Your task to perform on an android device: Clear all items from cart on newegg. Add lg ultragear to the cart on newegg, then select checkout. Image 0: 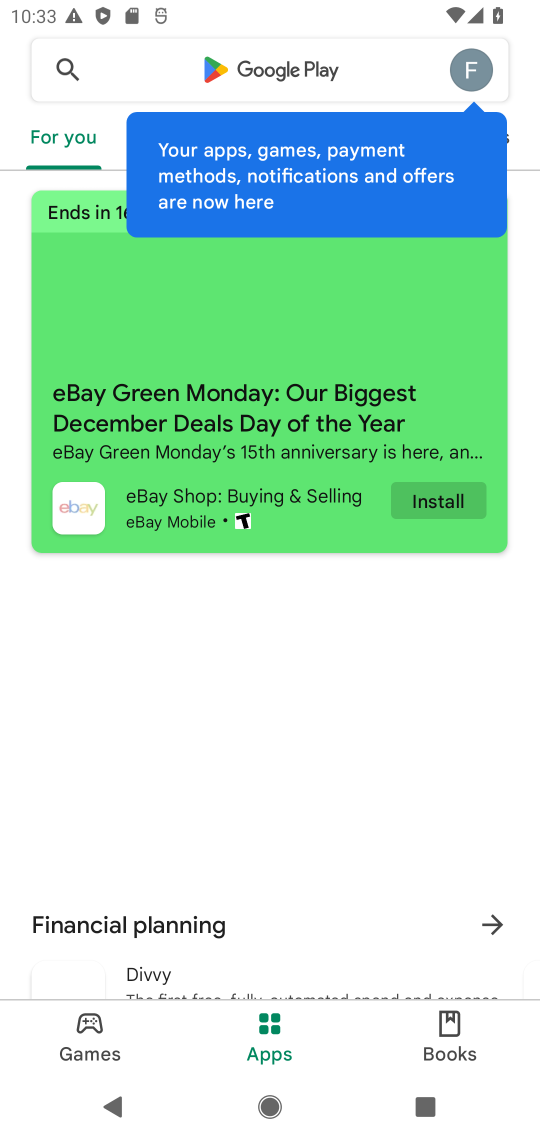
Step 0: press home button
Your task to perform on an android device: Clear all items from cart on newegg. Add lg ultragear to the cart on newegg, then select checkout. Image 1: 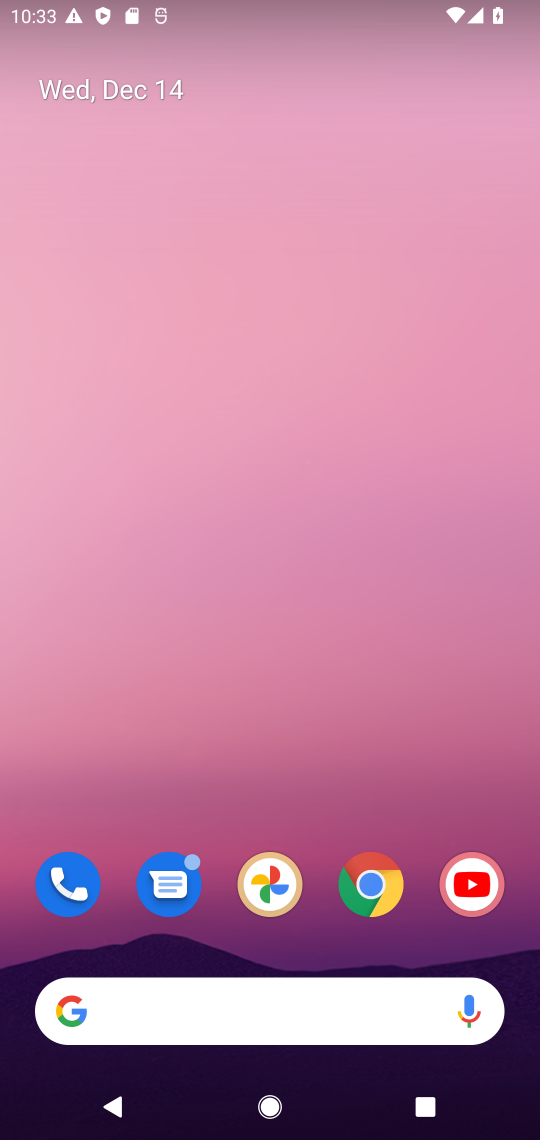
Step 1: click (363, 880)
Your task to perform on an android device: Clear all items from cart on newegg. Add lg ultragear to the cart on newegg, then select checkout. Image 2: 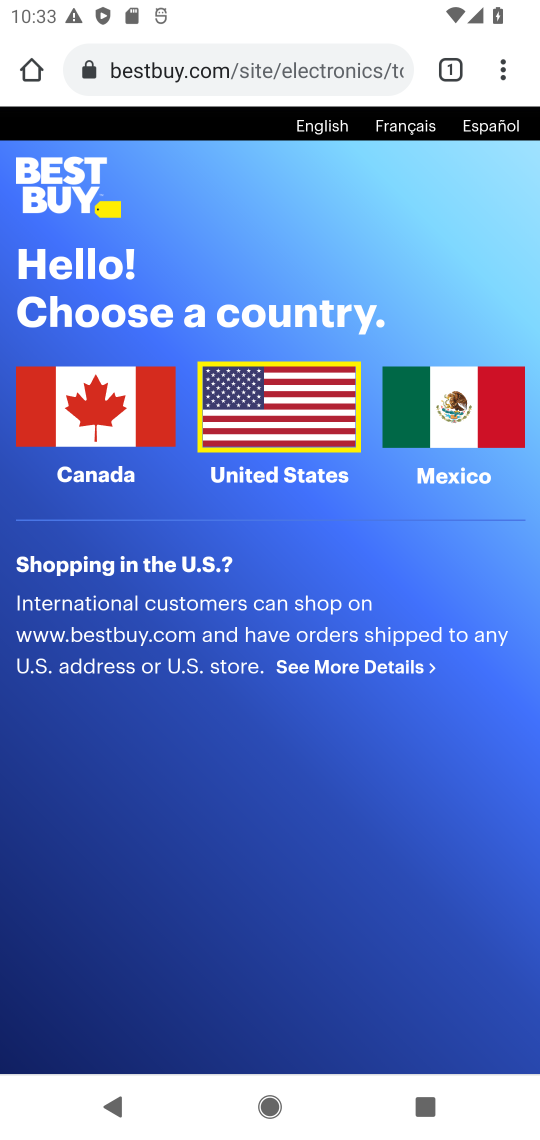
Step 2: click (354, 81)
Your task to perform on an android device: Clear all items from cart on newegg. Add lg ultragear to the cart on newegg, then select checkout. Image 3: 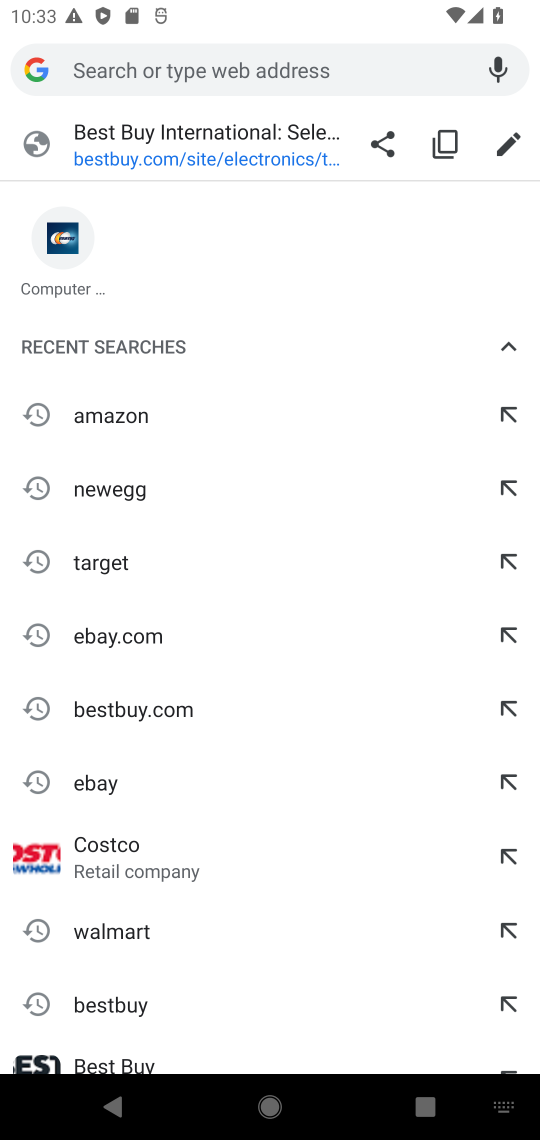
Step 3: click (121, 486)
Your task to perform on an android device: Clear all items from cart on newegg. Add lg ultragear to the cart on newegg, then select checkout. Image 4: 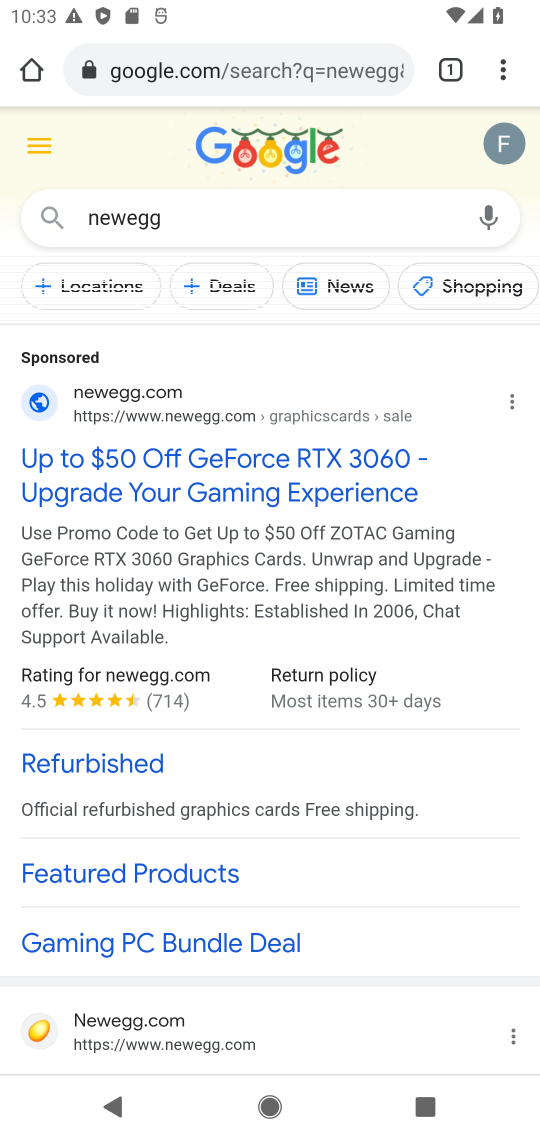
Step 4: click (193, 1039)
Your task to perform on an android device: Clear all items from cart on newegg. Add lg ultragear to the cart on newegg, then select checkout. Image 5: 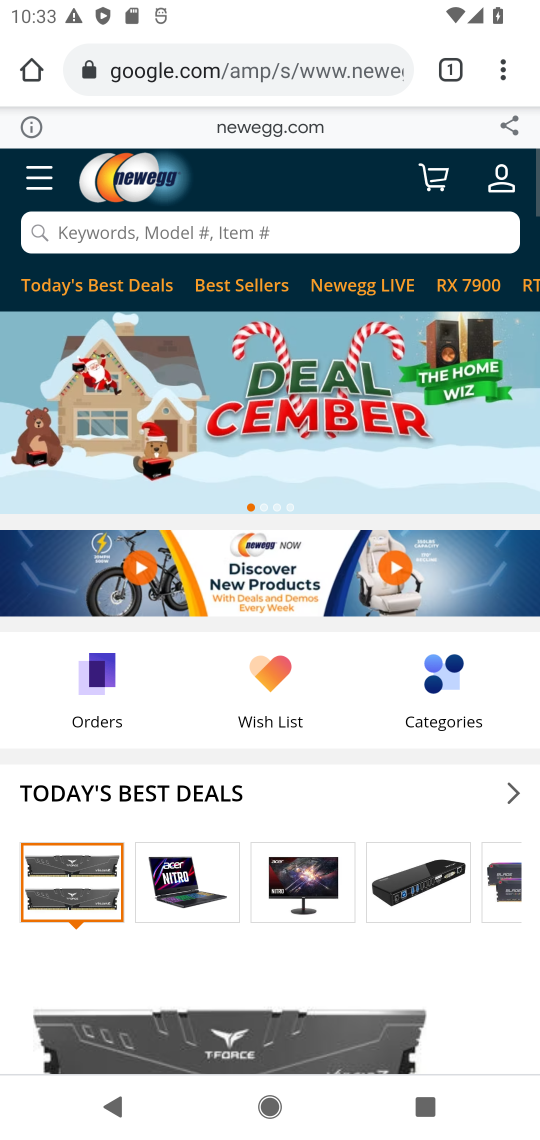
Step 5: click (448, 183)
Your task to perform on an android device: Clear all items from cart on newegg. Add lg ultragear to the cart on newegg, then select checkout. Image 6: 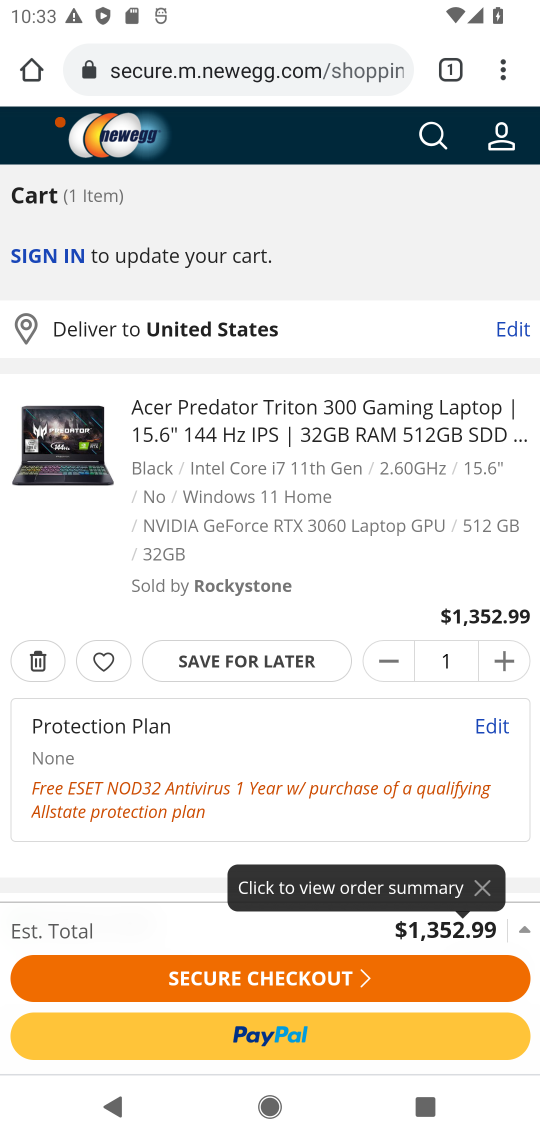
Step 6: click (431, 138)
Your task to perform on an android device: Clear all items from cart on newegg. Add lg ultragear to the cart on newegg, then select checkout. Image 7: 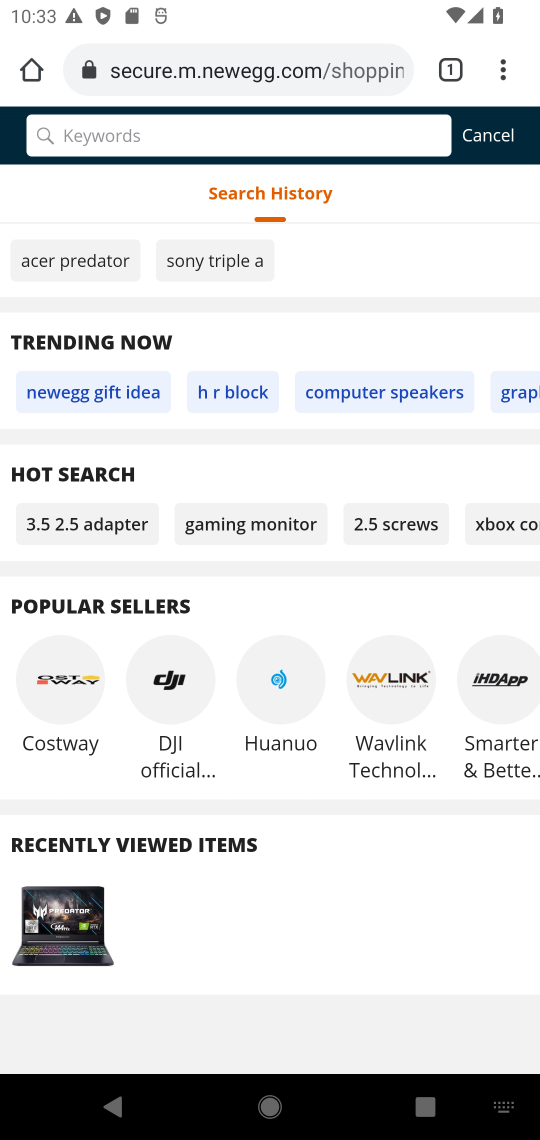
Step 7: click (372, 139)
Your task to perform on an android device: Clear all items from cart on newegg. Add lg ultragear to the cart on newegg, then select checkout. Image 8: 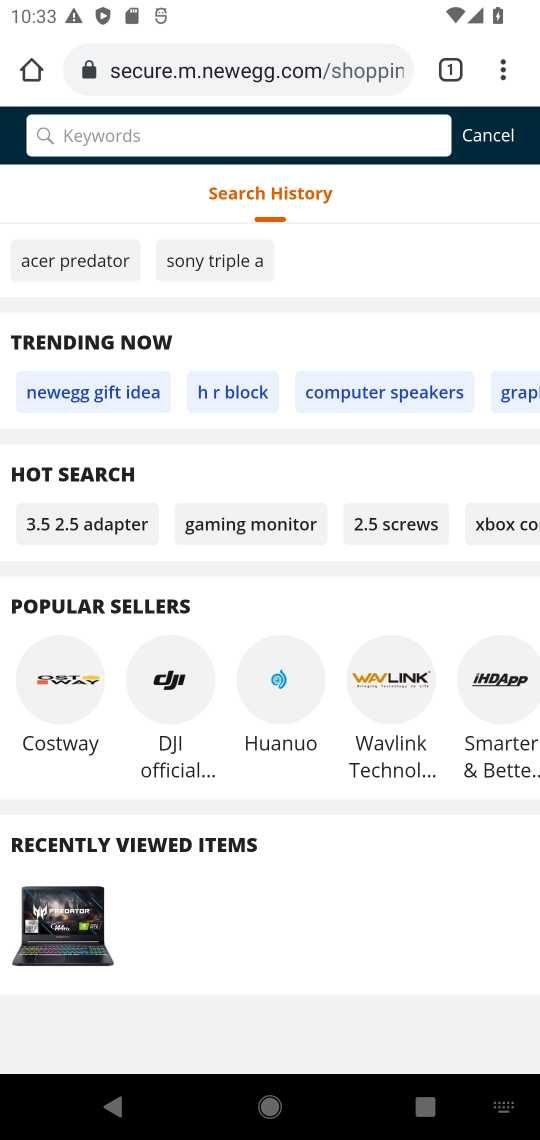
Step 8: press enter
Your task to perform on an android device: Clear all items from cart on newegg. Add lg ultragear to the cart on newegg, then select checkout. Image 9: 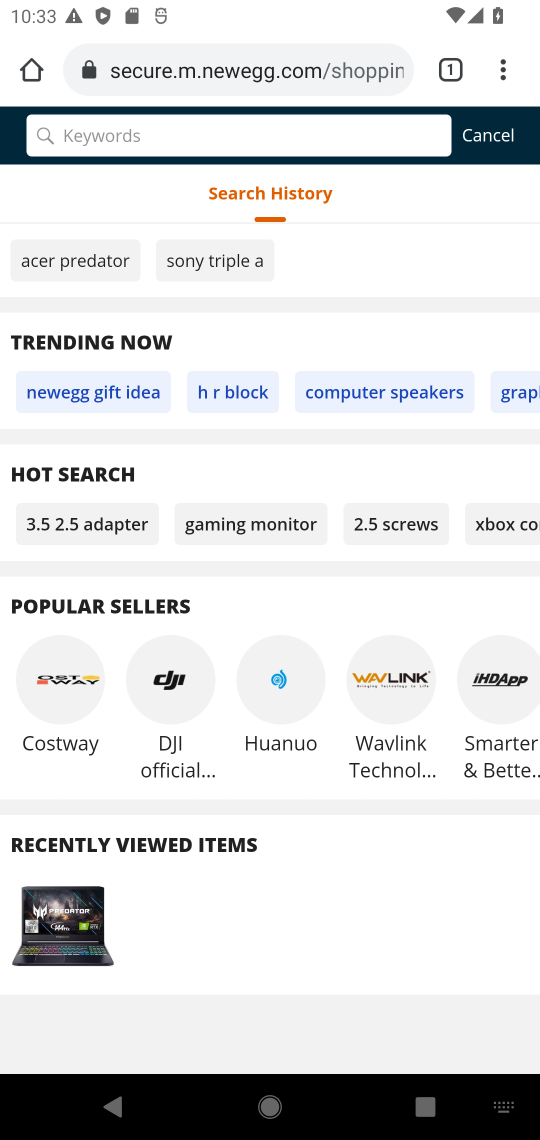
Step 9: type "lg ultragear"
Your task to perform on an android device: Clear all items from cart on newegg. Add lg ultragear to the cart on newegg, then select checkout. Image 10: 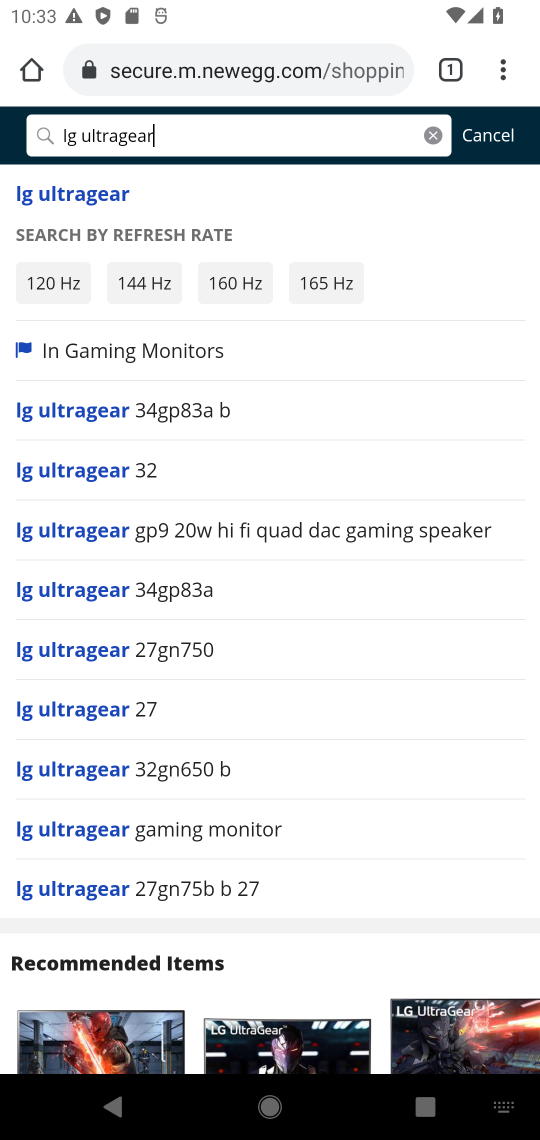
Step 10: click (112, 190)
Your task to perform on an android device: Clear all items from cart on newegg. Add lg ultragear to the cart on newegg, then select checkout. Image 11: 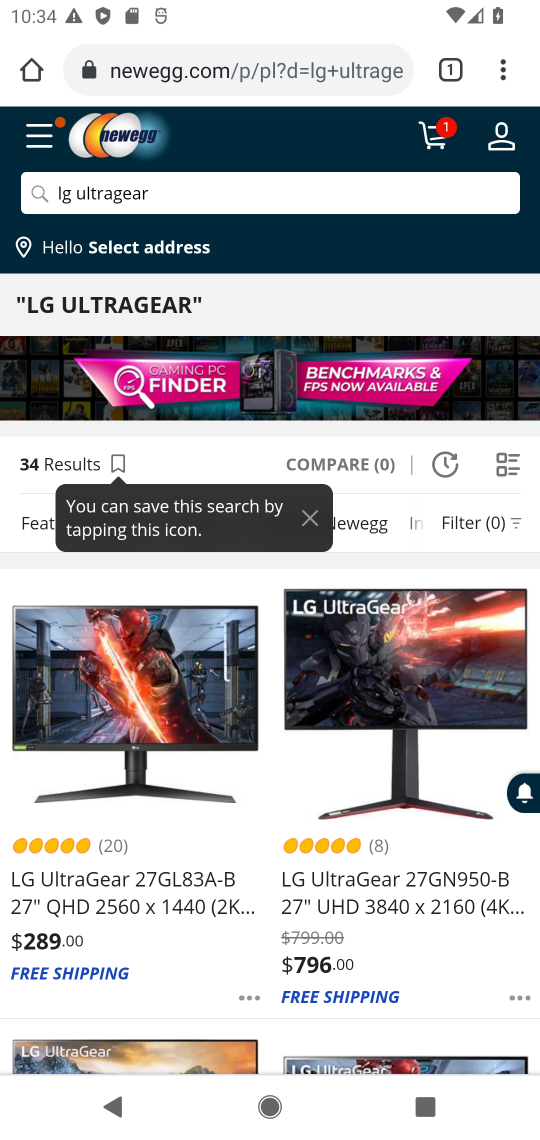
Step 11: click (445, 145)
Your task to perform on an android device: Clear all items from cart on newegg. Add lg ultragear to the cart on newegg, then select checkout. Image 12: 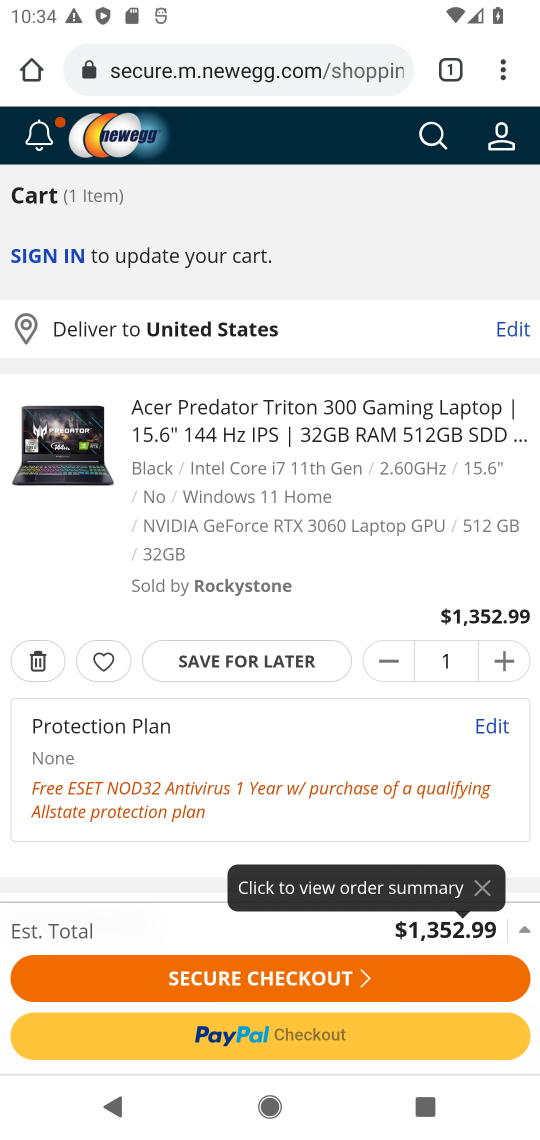
Step 12: click (28, 668)
Your task to perform on an android device: Clear all items from cart on newegg. Add lg ultragear to the cart on newegg, then select checkout. Image 13: 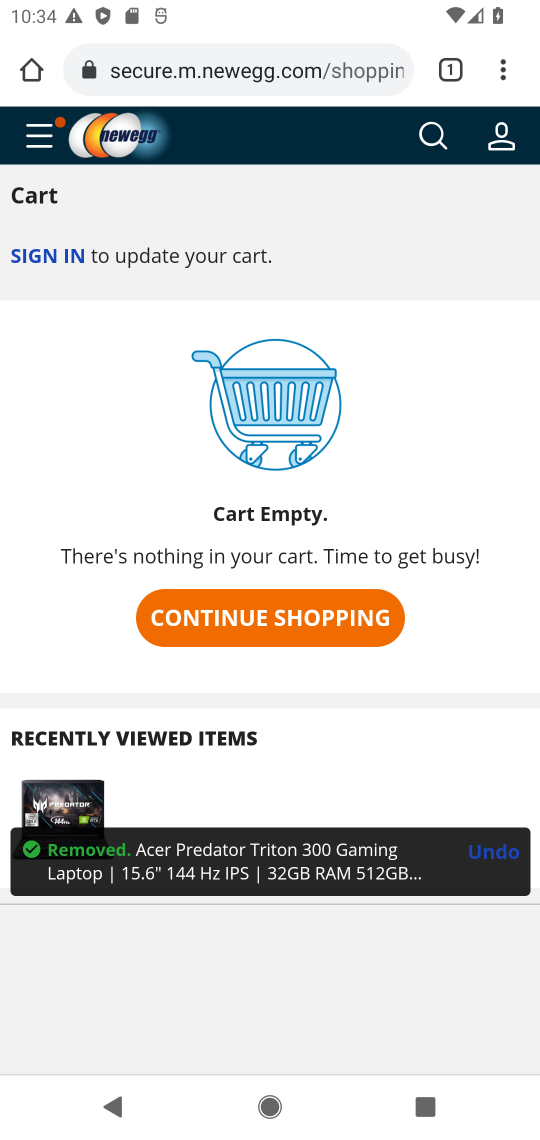
Step 13: click (437, 135)
Your task to perform on an android device: Clear all items from cart on newegg. Add lg ultragear to the cart on newegg, then select checkout. Image 14: 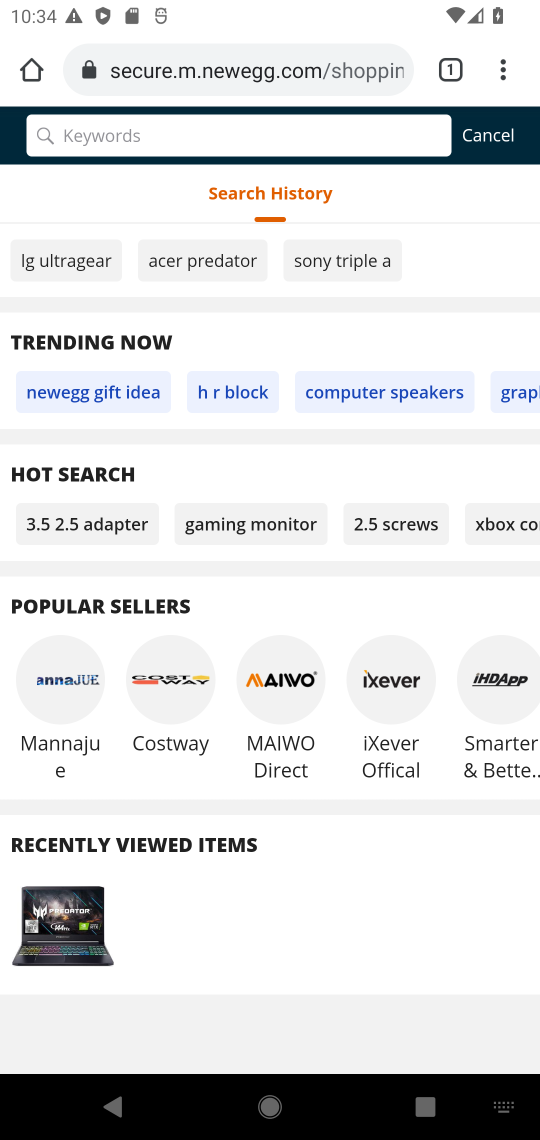
Step 14: click (357, 146)
Your task to perform on an android device: Clear all items from cart on newegg. Add lg ultragear to the cart on newegg, then select checkout. Image 15: 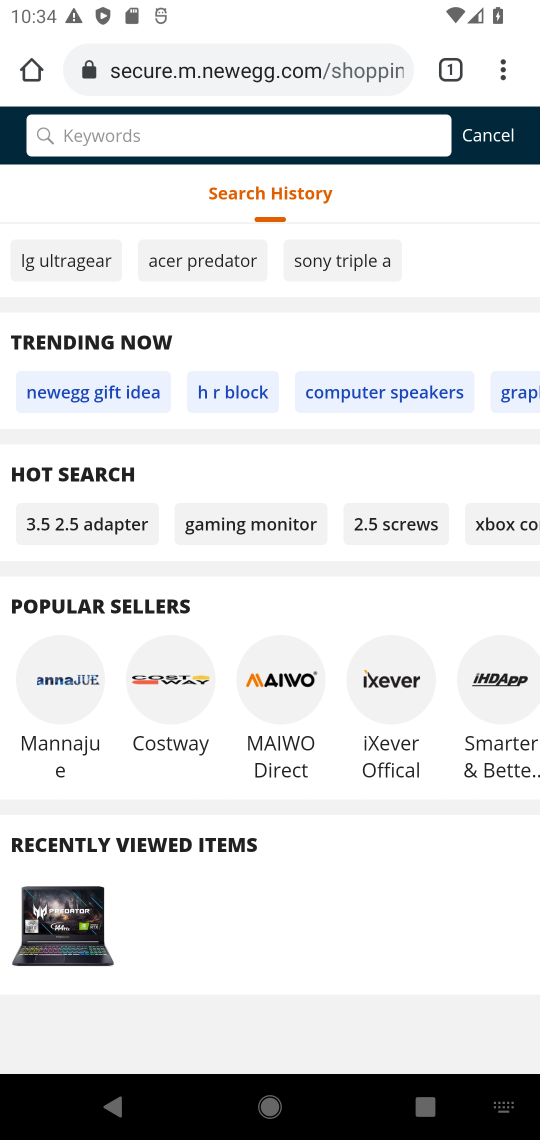
Step 15: press enter
Your task to perform on an android device: Clear all items from cart on newegg. Add lg ultragear to the cart on newegg, then select checkout. Image 16: 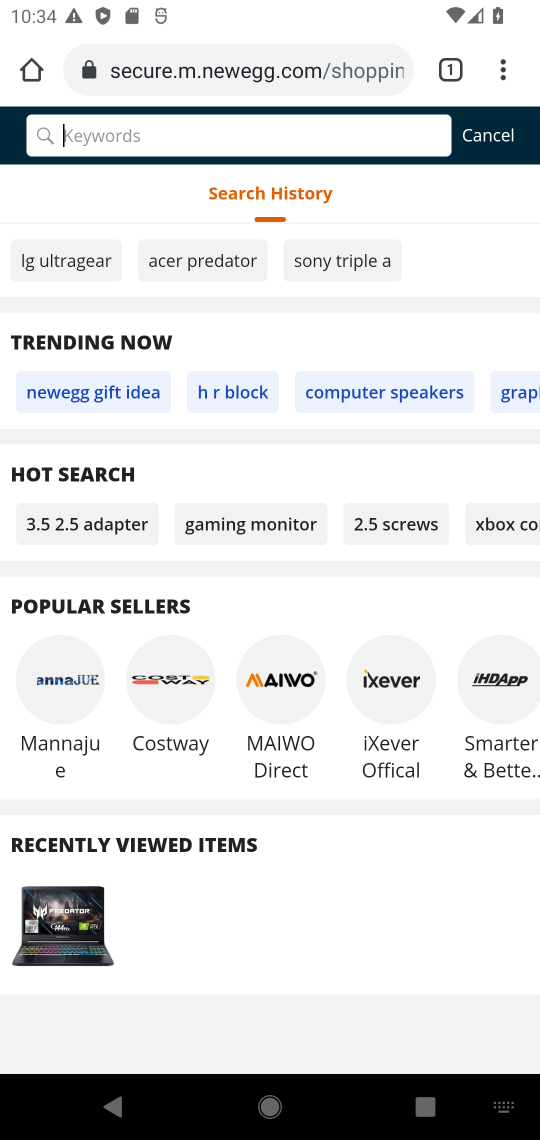
Step 16: type "lg ultragear"
Your task to perform on an android device: Clear all items from cart on newegg. Add lg ultragear to the cart on newegg, then select checkout. Image 17: 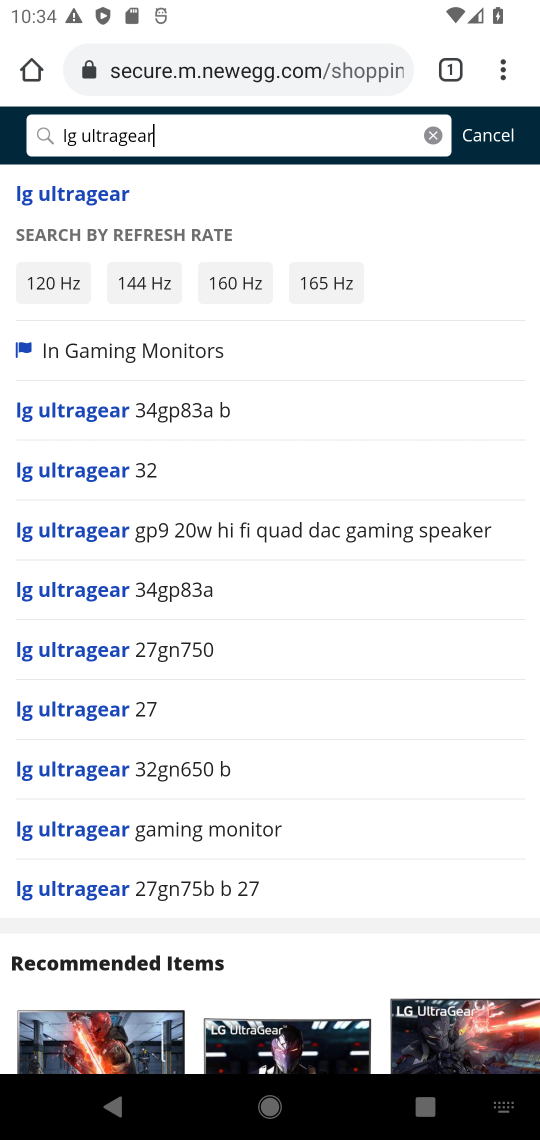
Step 17: click (105, 193)
Your task to perform on an android device: Clear all items from cart on newegg. Add lg ultragear to the cart on newegg, then select checkout. Image 18: 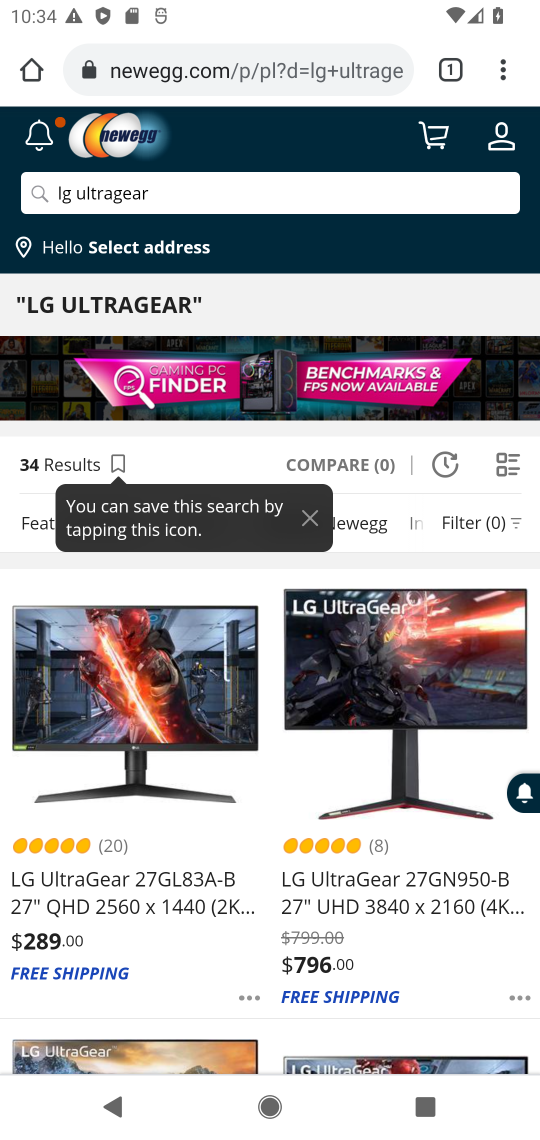
Step 18: click (164, 676)
Your task to perform on an android device: Clear all items from cart on newegg. Add lg ultragear to the cart on newegg, then select checkout. Image 19: 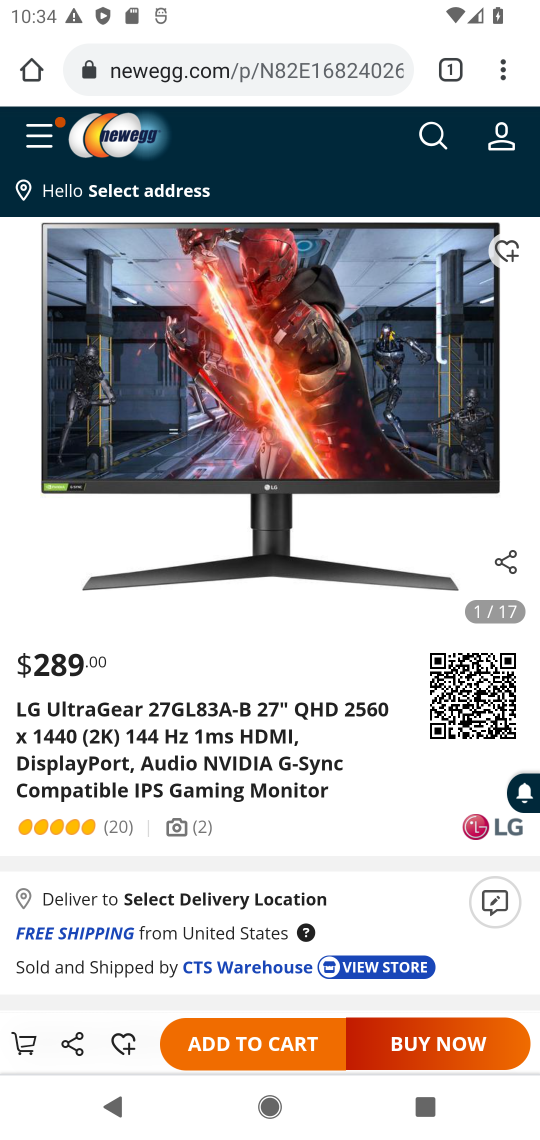
Step 19: click (257, 1035)
Your task to perform on an android device: Clear all items from cart on newegg. Add lg ultragear to the cart on newegg, then select checkout. Image 20: 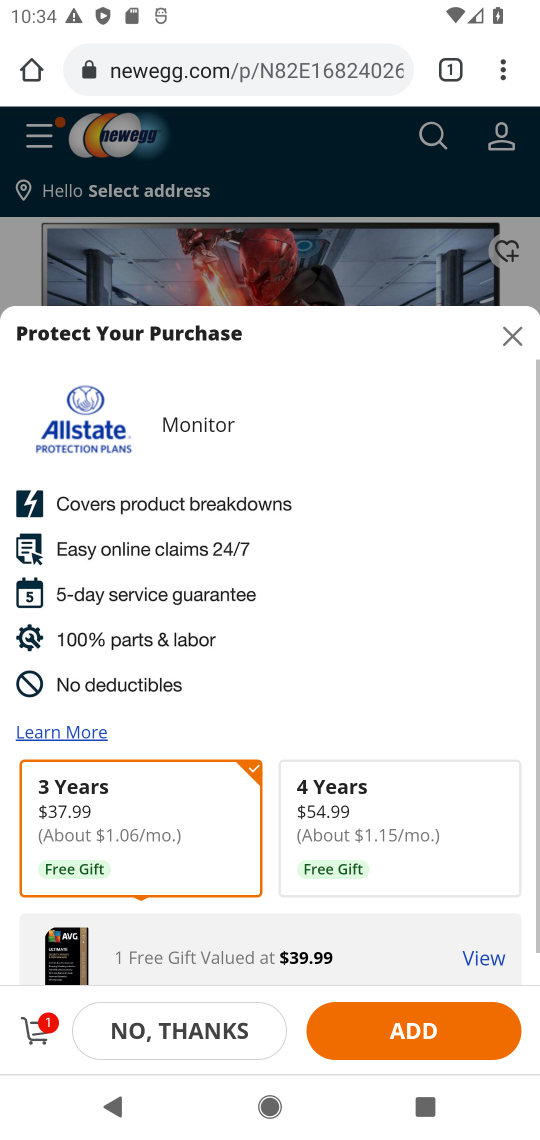
Step 20: click (33, 1038)
Your task to perform on an android device: Clear all items from cart on newegg. Add lg ultragear to the cart on newegg, then select checkout. Image 21: 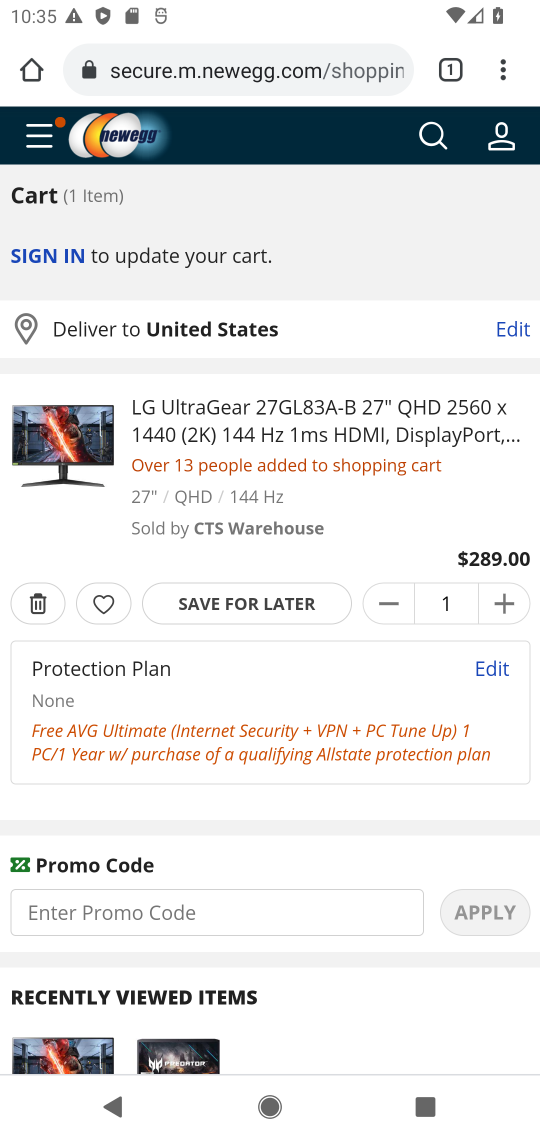
Step 21: drag from (318, 838) to (366, 482)
Your task to perform on an android device: Clear all items from cart on newegg. Add lg ultragear to the cart on newegg, then select checkout. Image 22: 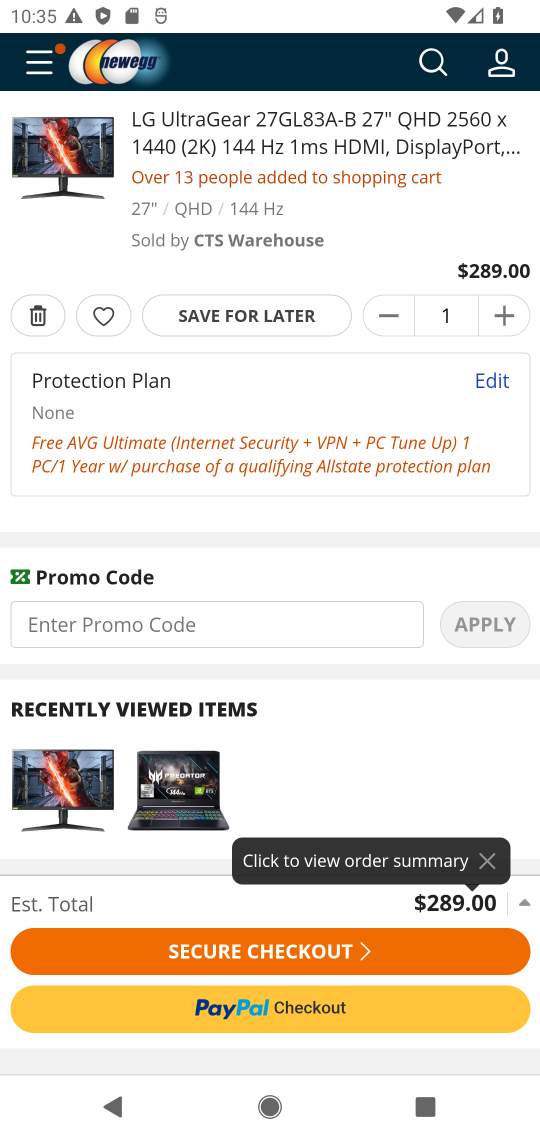
Step 22: click (284, 957)
Your task to perform on an android device: Clear all items from cart on newegg. Add lg ultragear to the cart on newegg, then select checkout. Image 23: 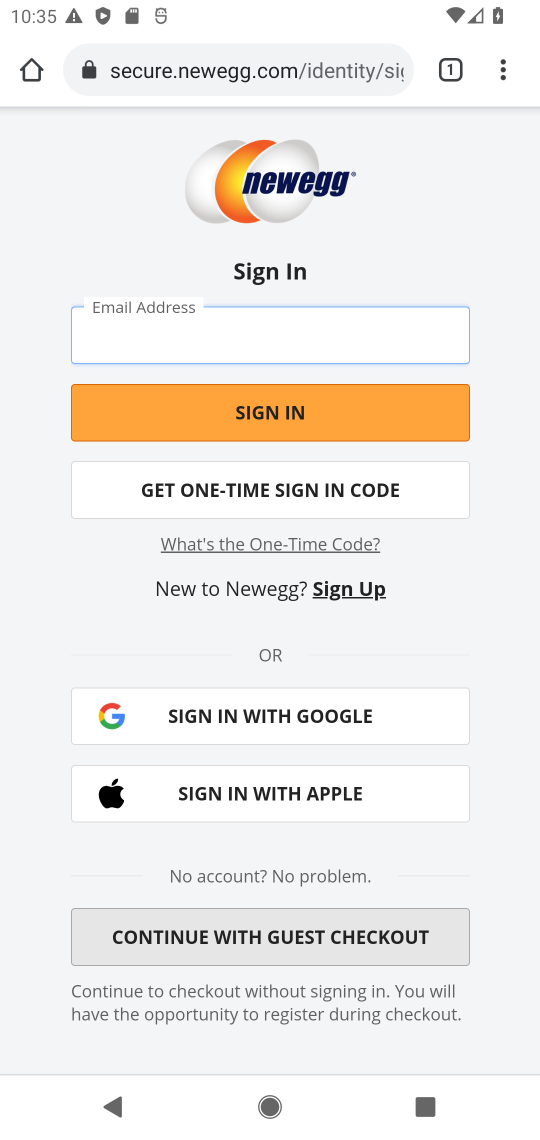
Step 23: task complete